Your task to perform on an android device: What's the weather going to be this weekend? Image 0: 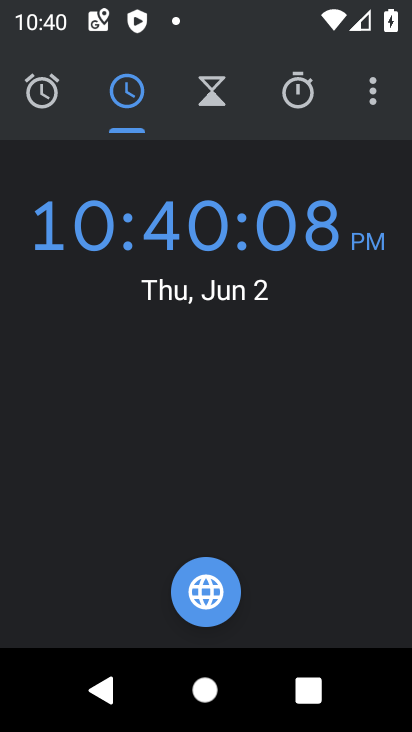
Step 0: press home button
Your task to perform on an android device: What's the weather going to be this weekend? Image 1: 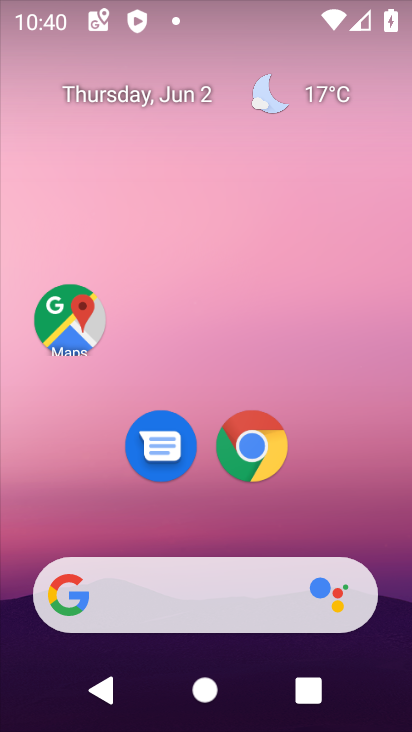
Step 1: click (313, 89)
Your task to perform on an android device: What's the weather going to be this weekend? Image 2: 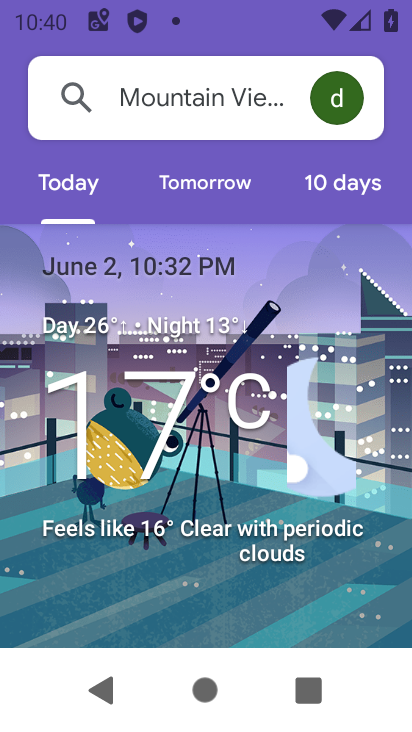
Step 2: click (339, 178)
Your task to perform on an android device: What's the weather going to be this weekend? Image 3: 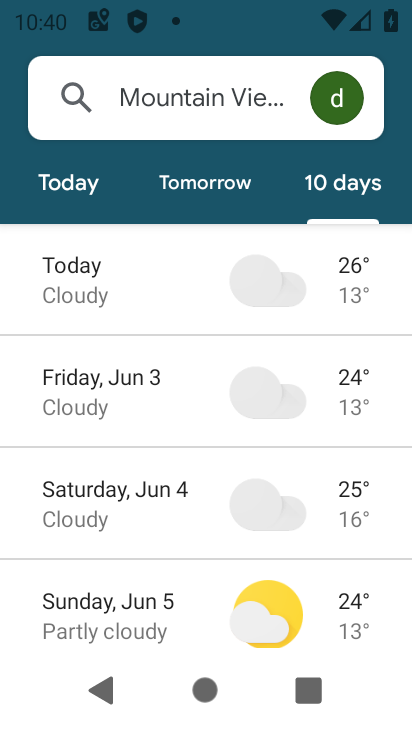
Step 3: task complete